Your task to perform on an android device: What's on my calendar tomorrow? Image 0: 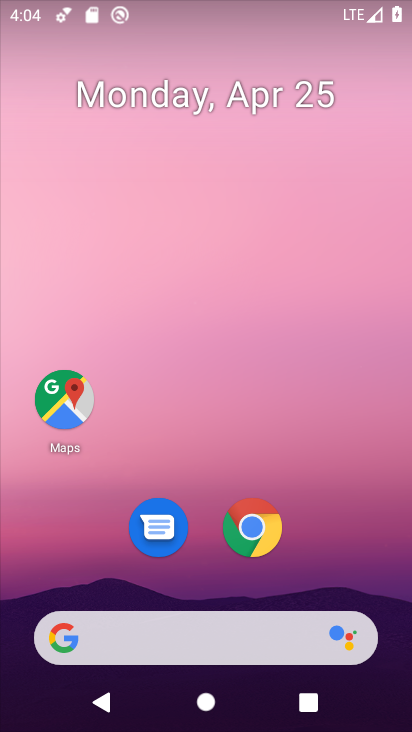
Step 0: drag from (373, 396) to (368, 3)
Your task to perform on an android device: What's on my calendar tomorrow? Image 1: 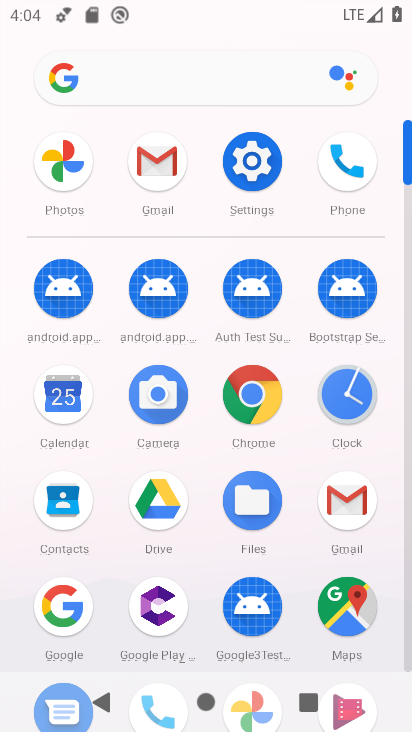
Step 1: click (401, 656)
Your task to perform on an android device: What's on my calendar tomorrow? Image 2: 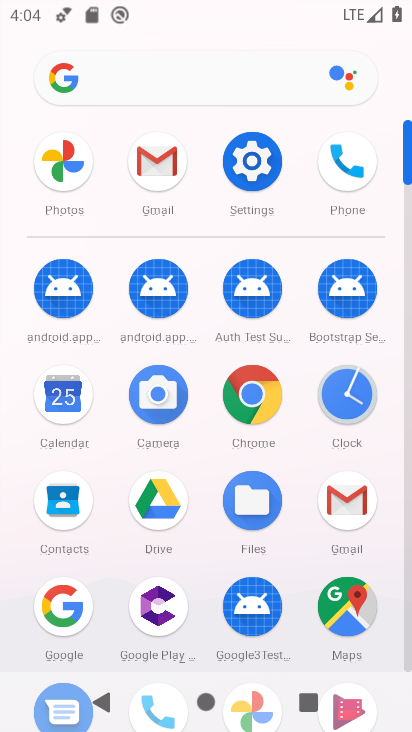
Step 2: click (406, 655)
Your task to perform on an android device: What's on my calendar tomorrow? Image 3: 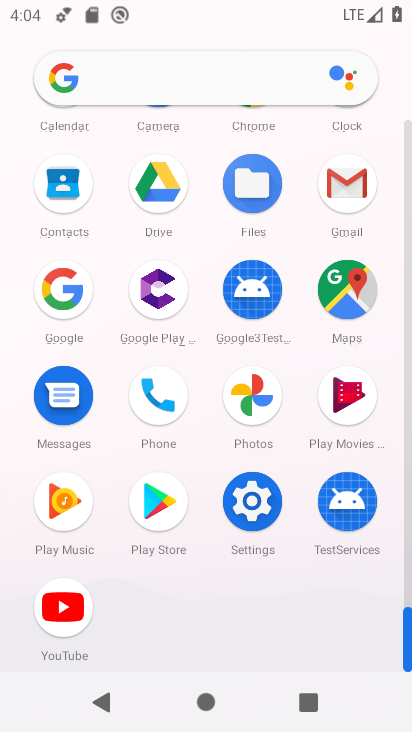
Step 3: click (404, 267)
Your task to perform on an android device: What's on my calendar tomorrow? Image 4: 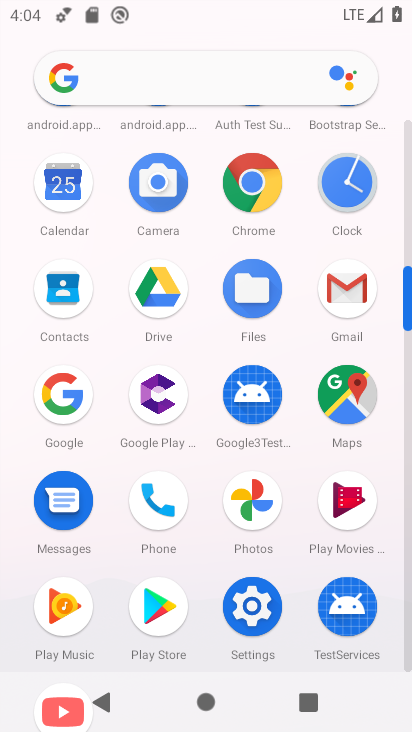
Step 4: click (56, 184)
Your task to perform on an android device: What's on my calendar tomorrow? Image 5: 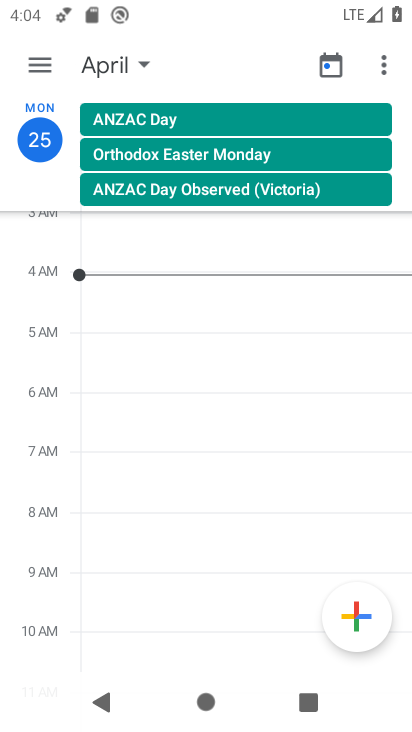
Step 5: click (134, 62)
Your task to perform on an android device: What's on my calendar tomorrow? Image 6: 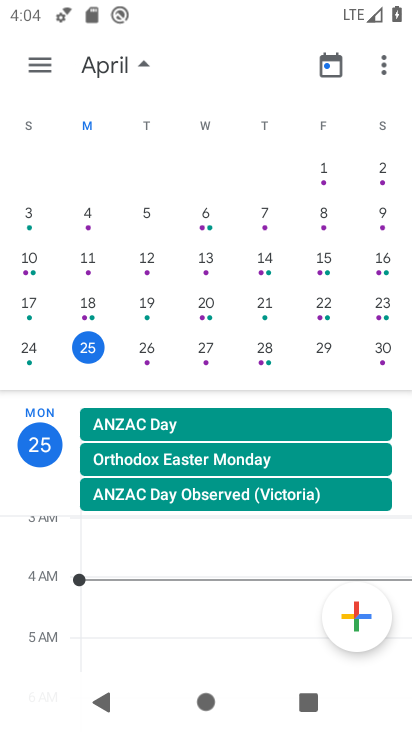
Step 6: click (150, 355)
Your task to perform on an android device: What's on my calendar tomorrow? Image 7: 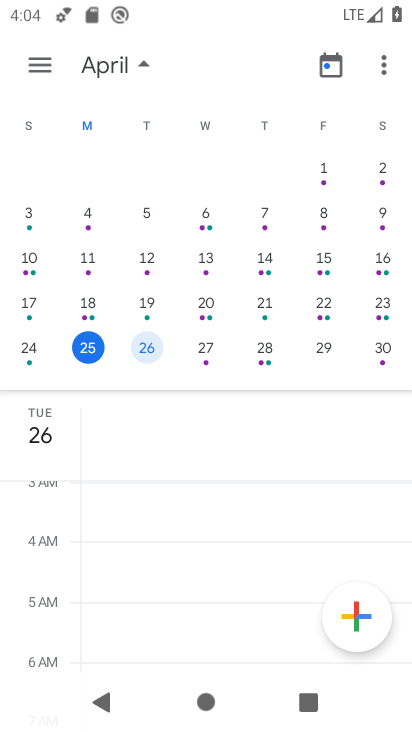
Step 7: task complete